Your task to perform on an android device: turn on the 24-hour format for clock Image 0: 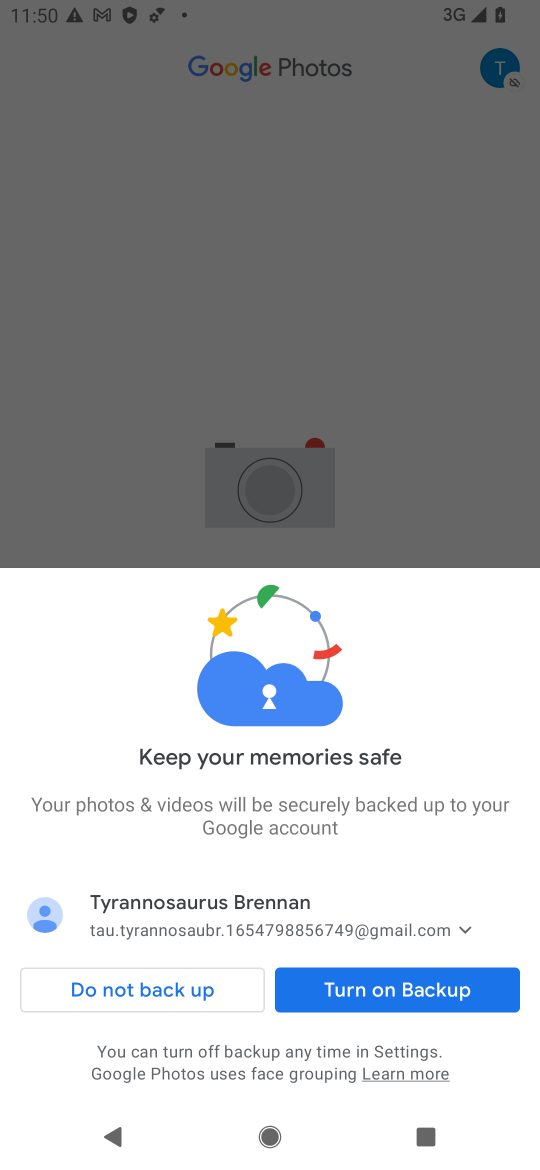
Step 0: press home button
Your task to perform on an android device: turn on the 24-hour format for clock Image 1: 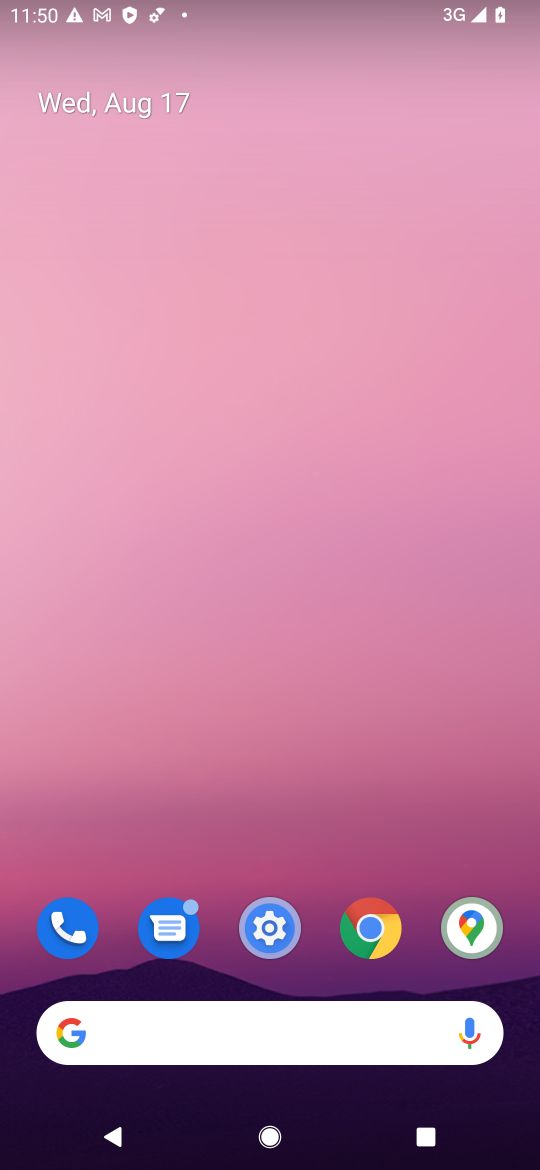
Step 1: drag from (237, 832) to (261, 261)
Your task to perform on an android device: turn on the 24-hour format for clock Image 2: 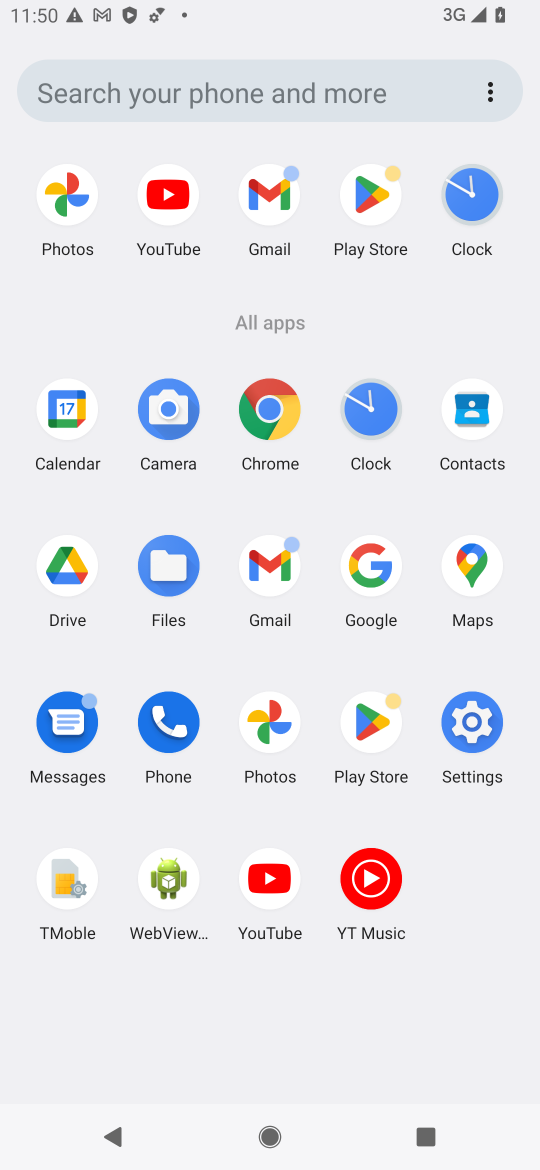
Step 2: click (463, 212)
Your task to perform on an android device: turn on the 24-hour format for clock Image 3: 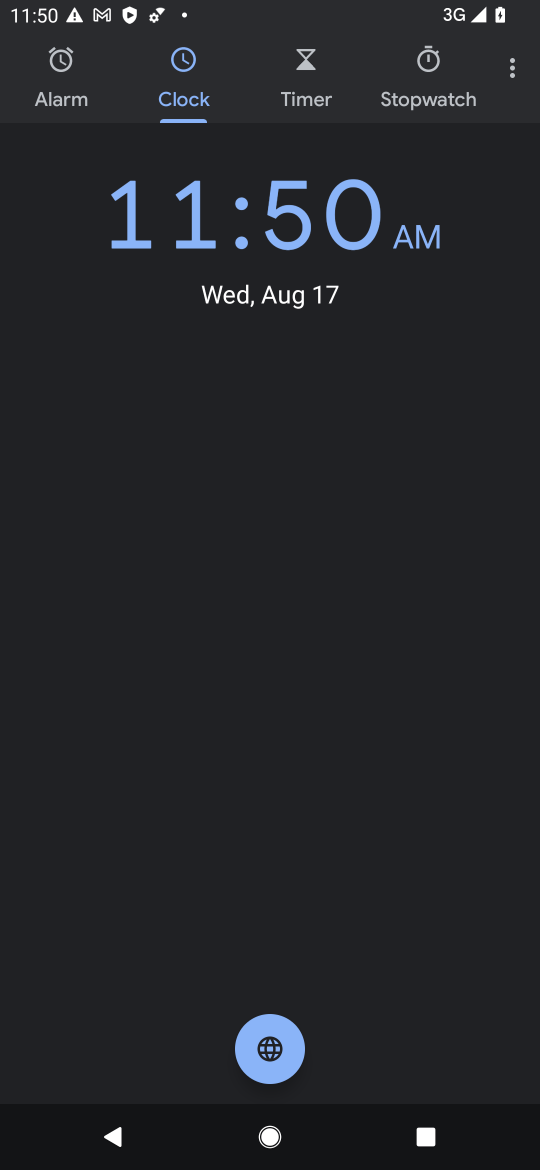
Step 3: click (506, 69)
Your task to perform on an android device: turn on the 24-hour format for clock Image 4: 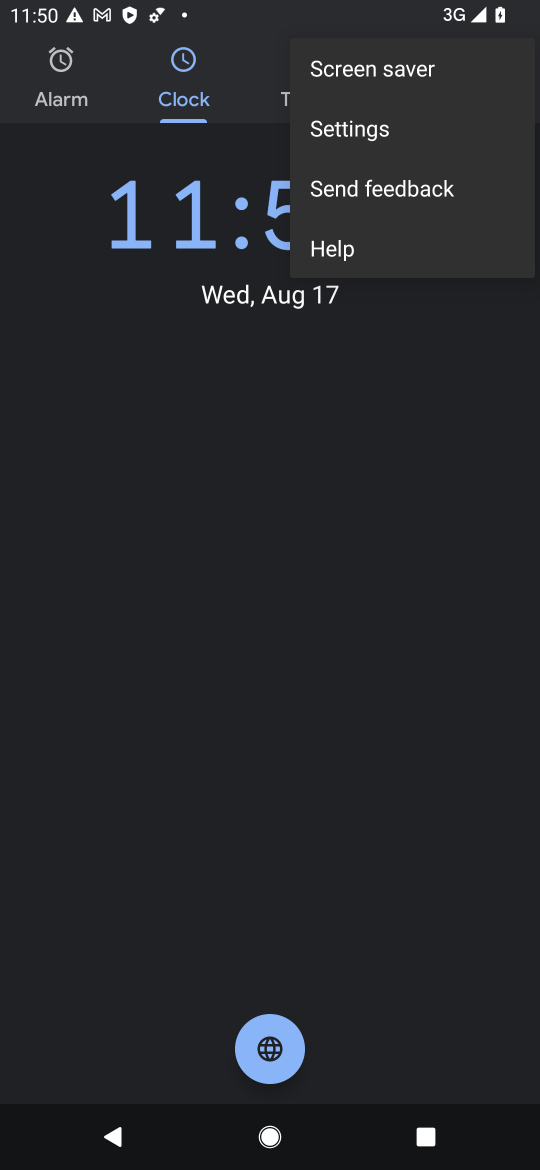
Step 4: click (380, 137)
Your task to perform on an android device: turn on the 24-hour format for clock Image 5: 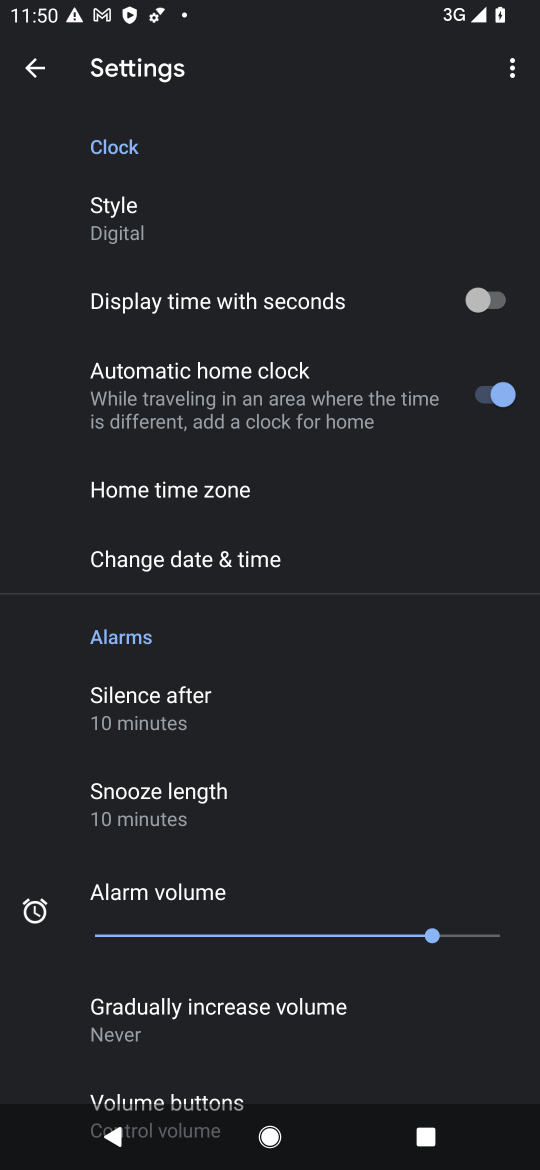
Step 5: click (256, 564)
Your task to perform on an android device: turn on the 24-hour format for clock Image 6: 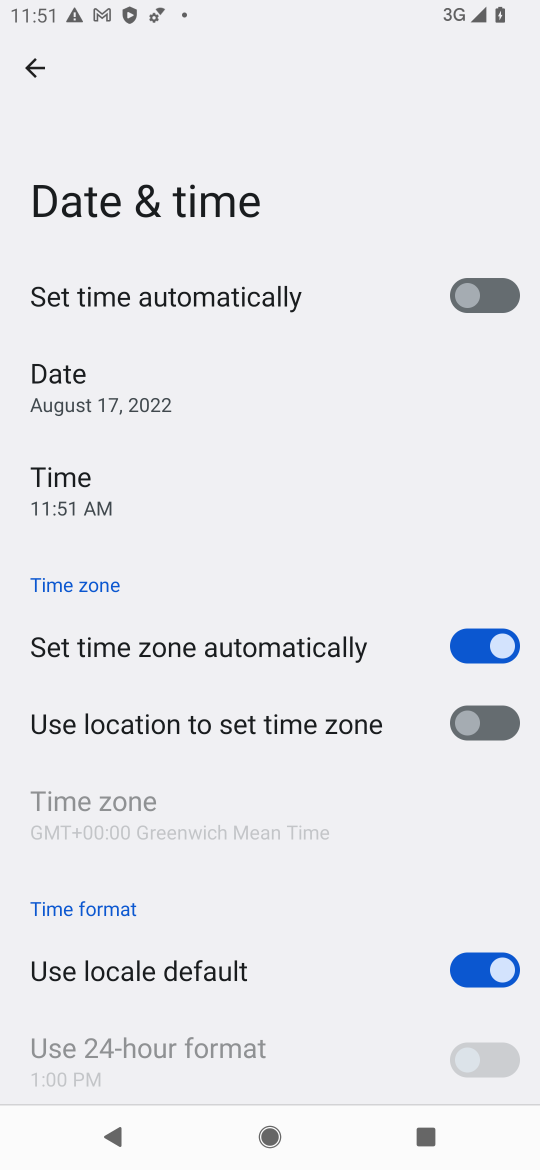
Step 6: drag from (284, 1027) to (306, 746)
Your task to perform on an android device: turn on the 24-hour format for clock Image 7: 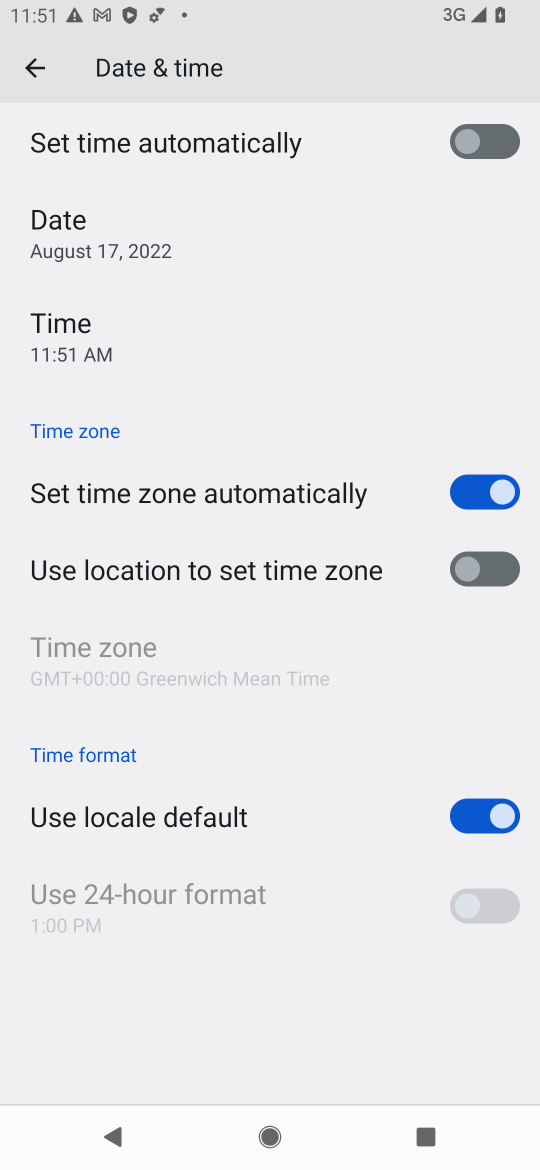
Step 7: click (457, 794)
Your task to perform on an android device: turn on the 24-hour format for clock Image 8: 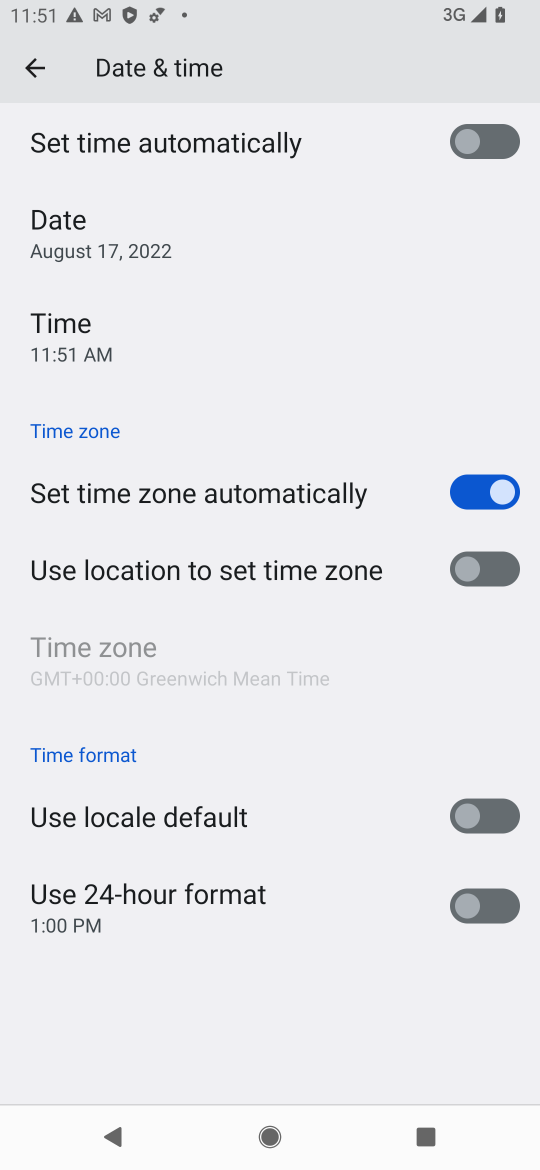
Step 8: click (513, 914)
Your task to perform on an android device: turn on the 24-hour format for clock Image 9: 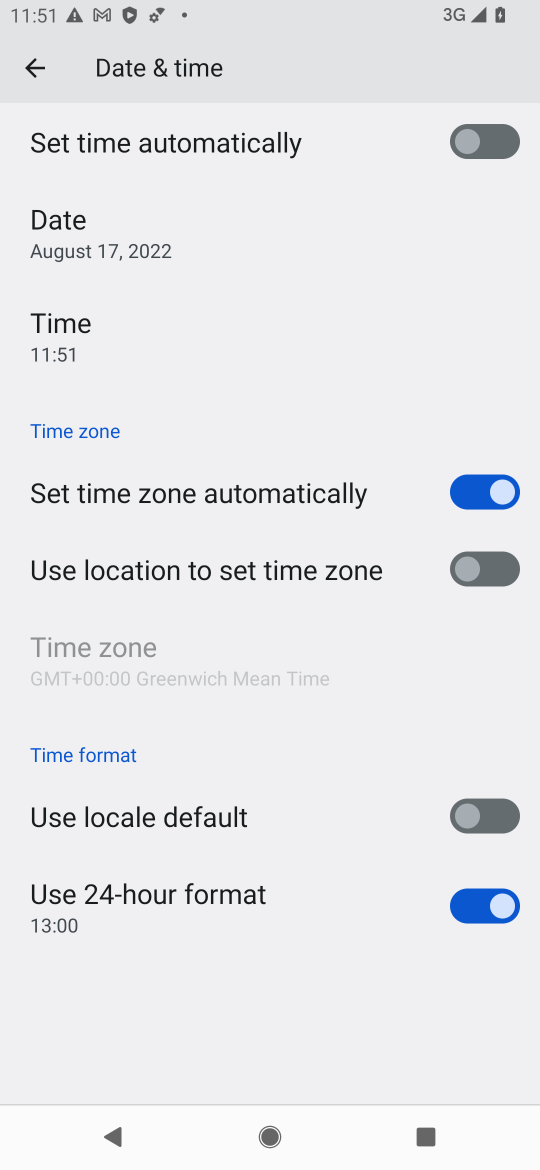
Step 9: task complete